Your task to perform on an android device: Open ESPN.com Image 0: 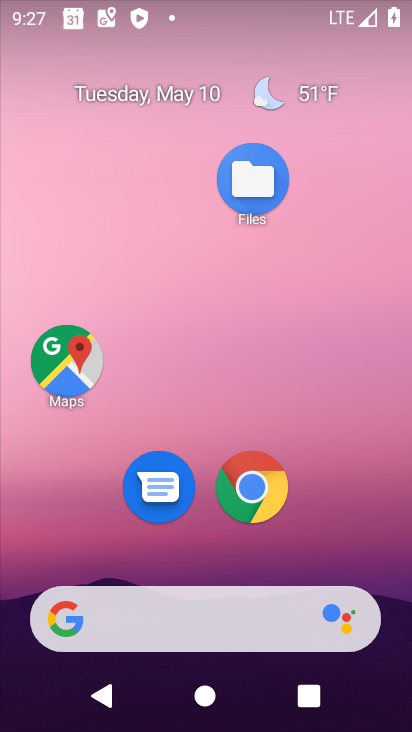
Step 0: drag from (200, 458) to (123, 15)
Your task to perform on an android device: Open ESPN.com Image 1: 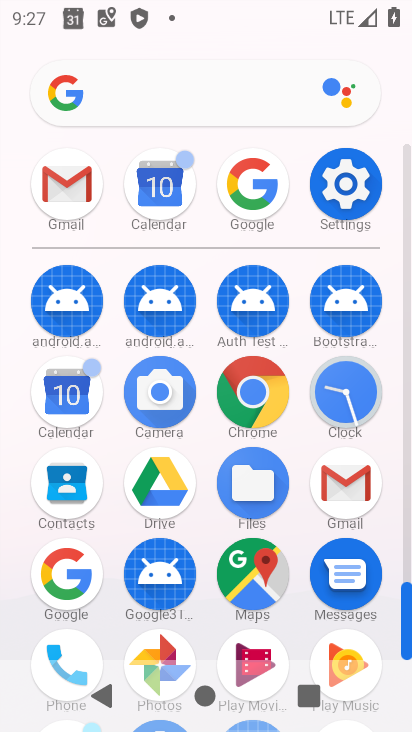
Step 1: click (68, 579)
Your task to perform on an android device: Open ESPN.com Image 2: 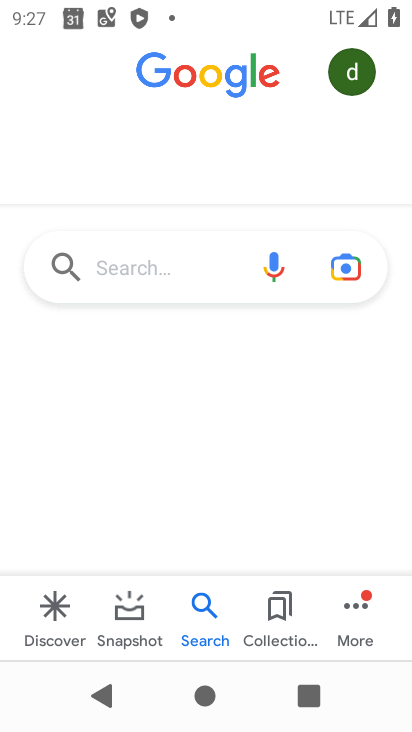
Step 2: click (140, 273)
Your task to perform on an android device: Open ESPN.com Image 3: 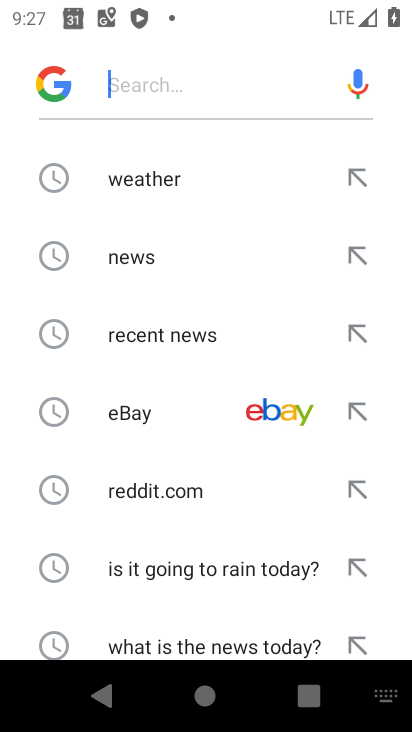
Step 3: type "espn.com"
Your task to perform on an android device: Open ESPN.com Image 4: 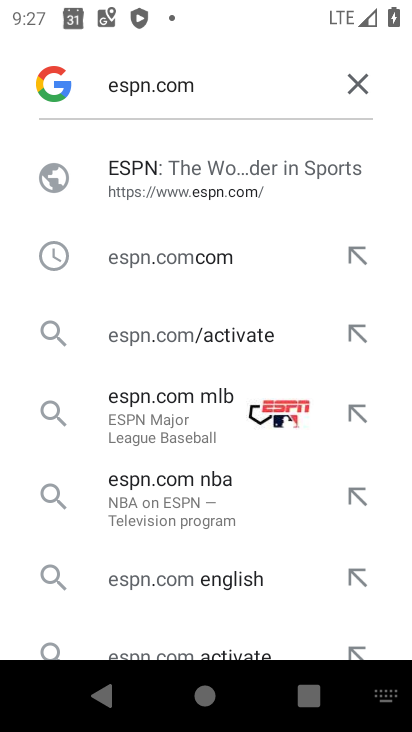
Step 4: click (189, 188)
Your task to perform on an android device: Open ESPN.com Image 5: 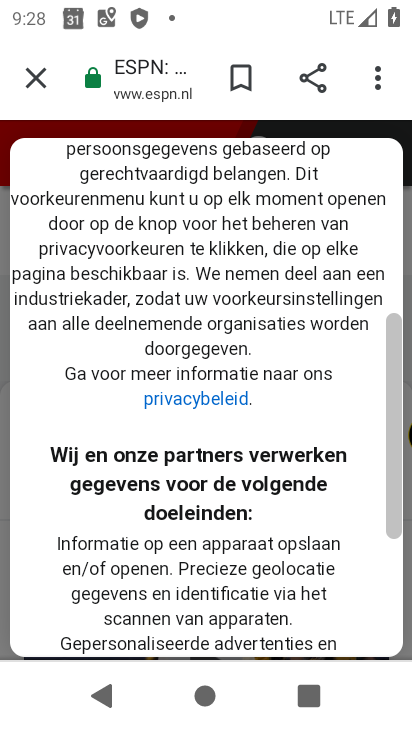
Step 5: task complete